Your task to perform on an android device: Open the calendar and show me this week's events? Image 0: 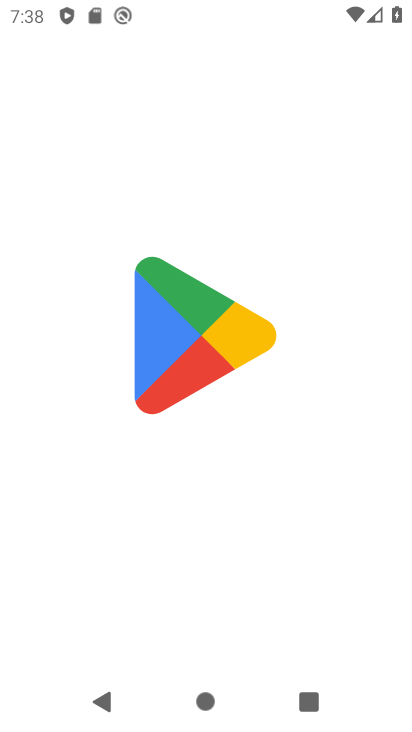
Step 0: click (218, 646)
Your task to perform on an android device: Open the calendar and show me this week's events? Image 1: 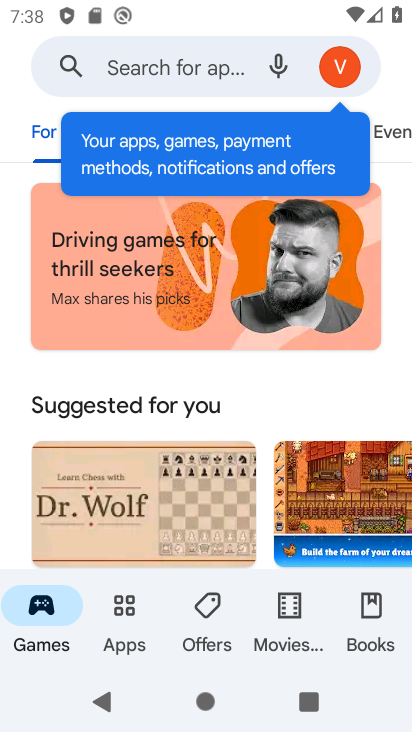
Step 1: press home button
Your task to perform on an android device: Open the calendar and show me this week's events? Image 2: 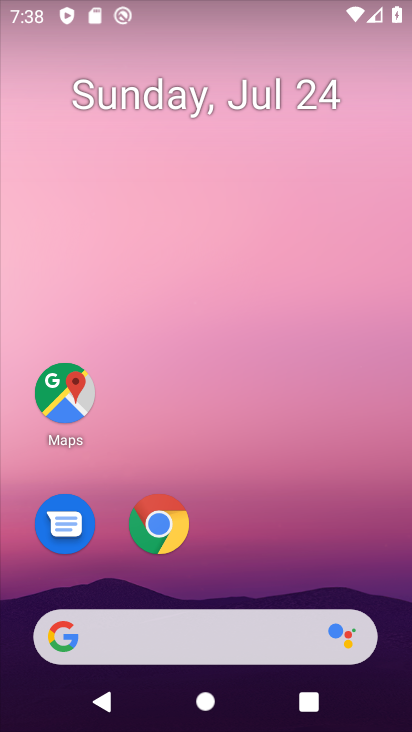
Step 2: drag from (265, 552) to (291, 0)
Your task to perform on an android device: Open the calendar and show me this week's events? Image 3: 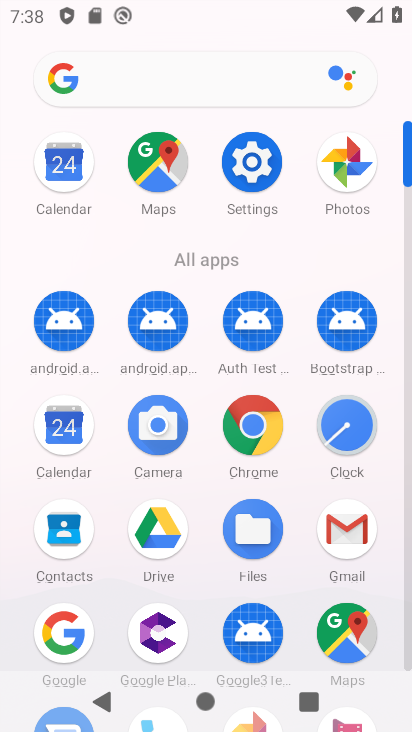
Step 3: click (57, 161)
Your task to perform on an android device: Open the calendar and show me this week's events? Image 4: 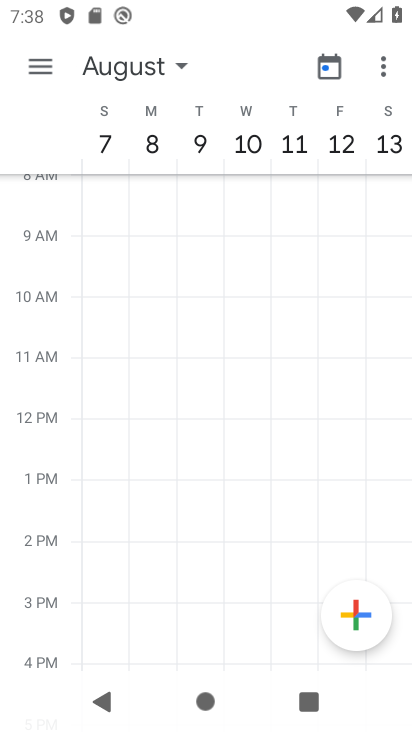
Step 4: drag from (105, 264) to (408, 306)
Your task to perform on an android device: Open the calendar and show me this week's events? Image 5: 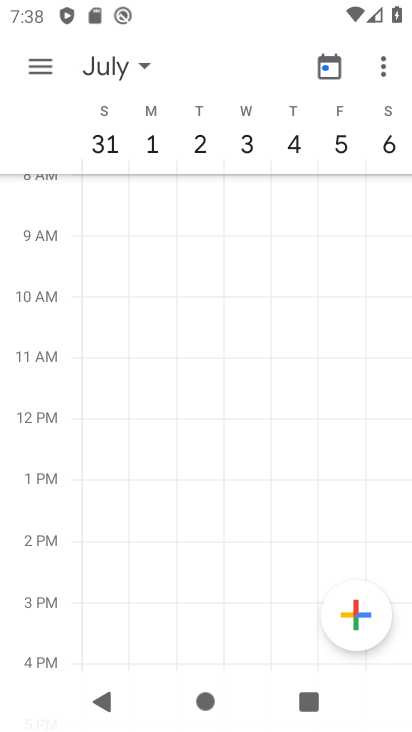
Step 5: drag from (102, 250) to (399, 339)
Your task to perform on an android device: Open the calendar and show me this week's events? Image 6: 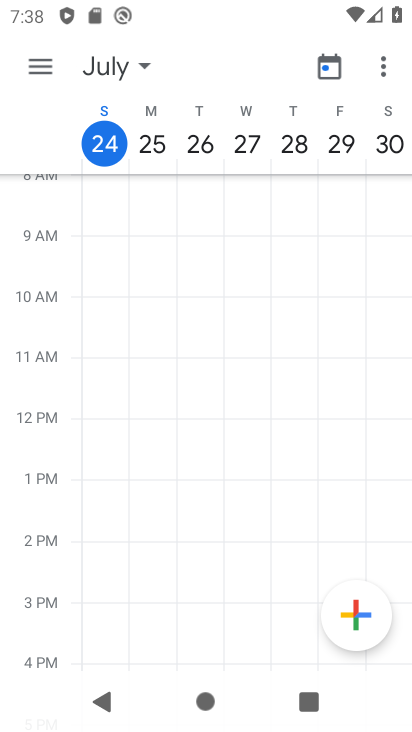
Step 6: drag from (220, 208) to (233, 616)
Your task to perform on an android device: Open the calendar and show me this week's events? Image 7: 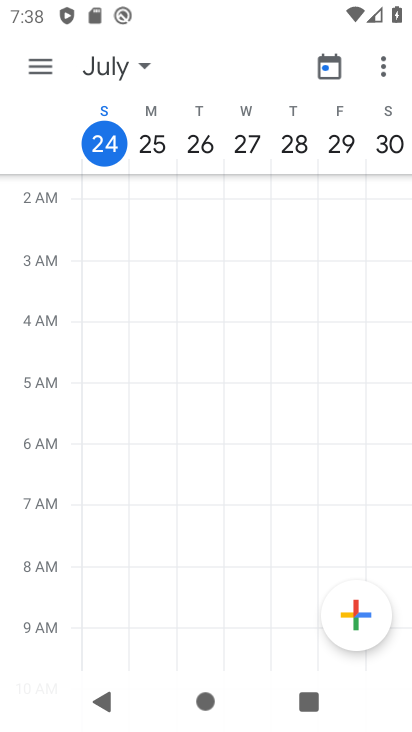
Step 7: click (268, 461)
Your task to perform on an android device: Open the calendar and show me this week's events? Image 8: 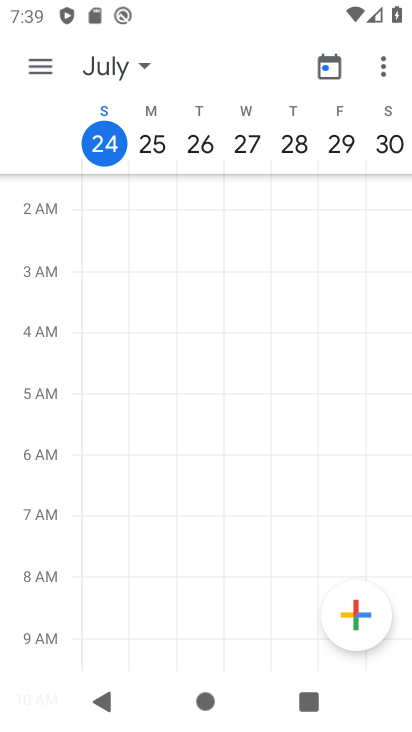
Step 8: task complete